Your task to perform on an android device: turn on sleep mode Image 0: 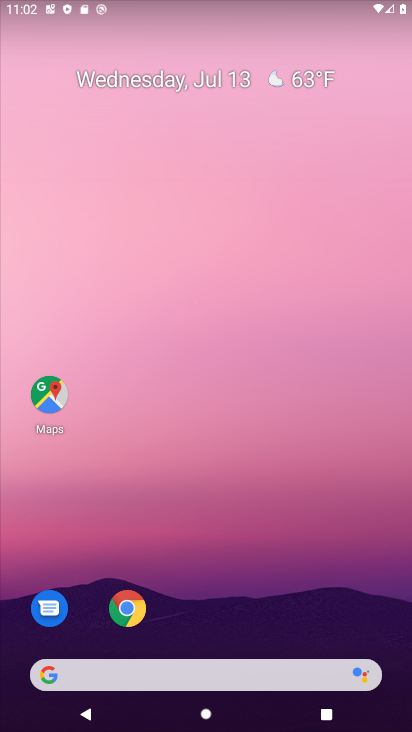
Step 0: press home button
Your task to perform on an android device: turn on sleep mode Image 1: 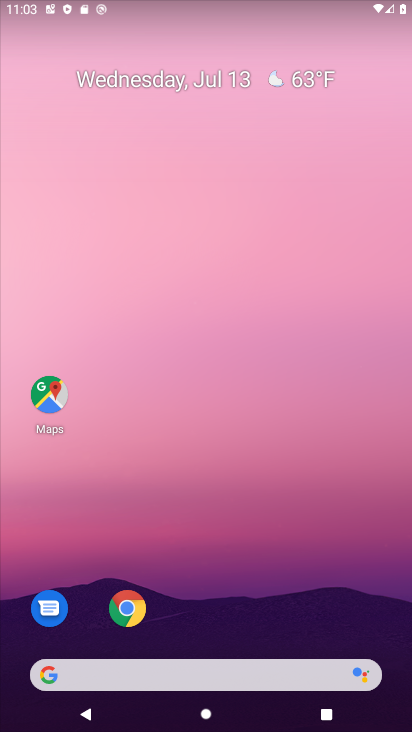
Step 1: drag from (284, 596) to (286, 119)
Your task to perform on an android device: turn on sleep mode Image 2: 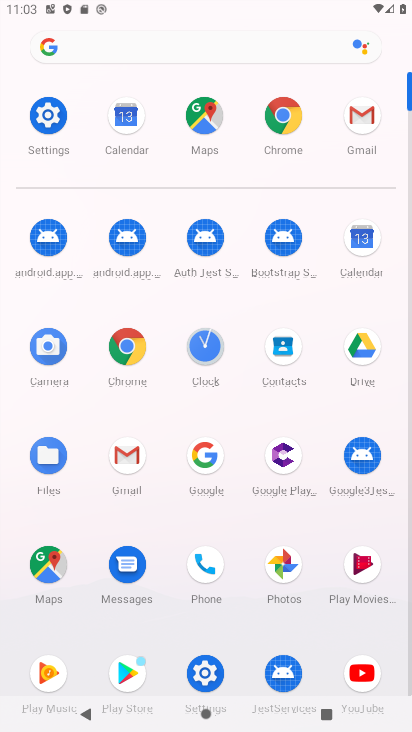
Step 2: click (51, 123)
Your task to perform on an android device: turn on sleep mode Image 3: 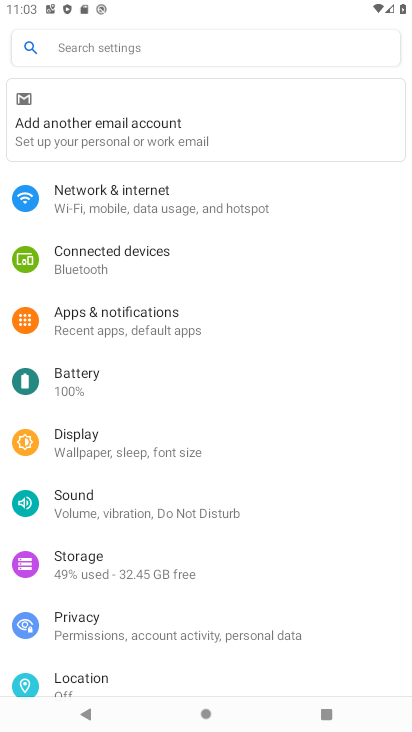
Step 3: click (88, 448)
Your task to perform on an android device: turn on sleep mode Image 4: 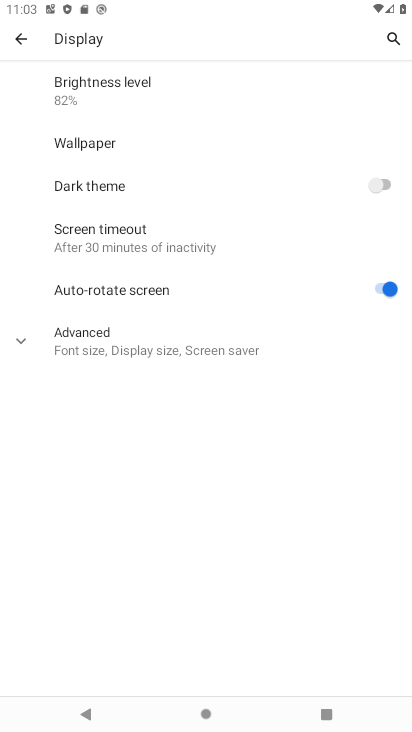
Step 4: click (19, 335)
Your task to perform on an android device: turn on sleep mode Image 5: 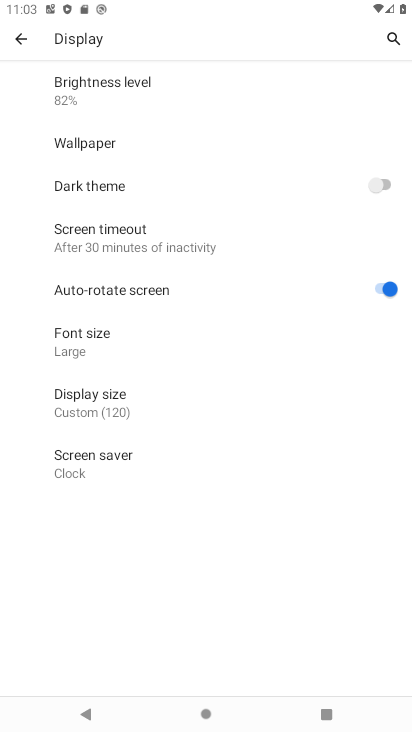
Step 5: task complete